Your task to perform on an android device: What's the weather? Image 0: 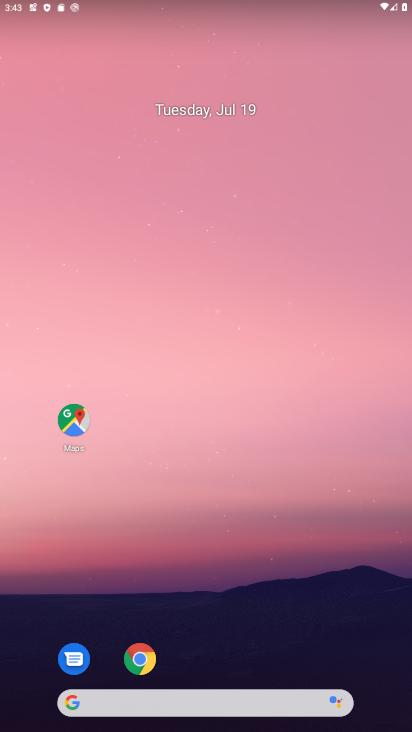
Step 0: drag from (329, 543) to (257, 25)
Your task to perform on an android device: What's the weather? Image 1: 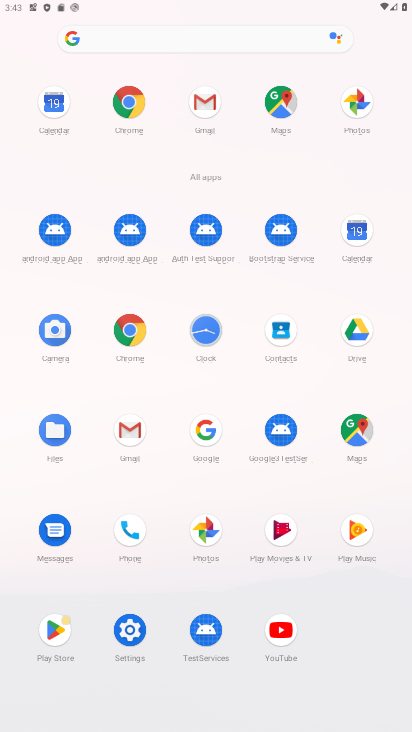
Step 1: click (197, 433)
Your task to perform on an android device: What's the weather? Image 2: 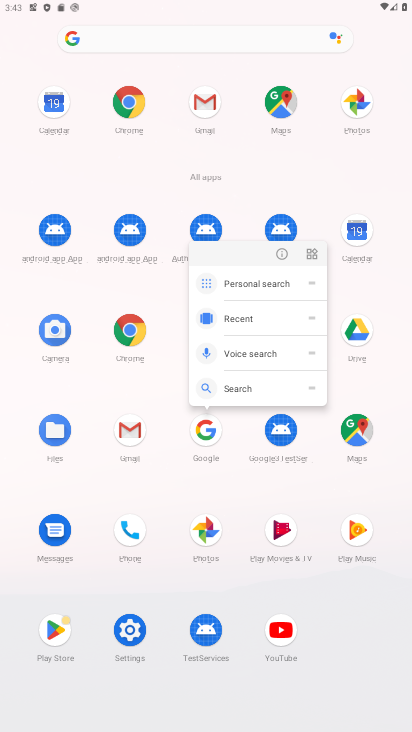
Step 2: click (198, 434)
Your task to perform on an android device: What's the weather? Image 3: 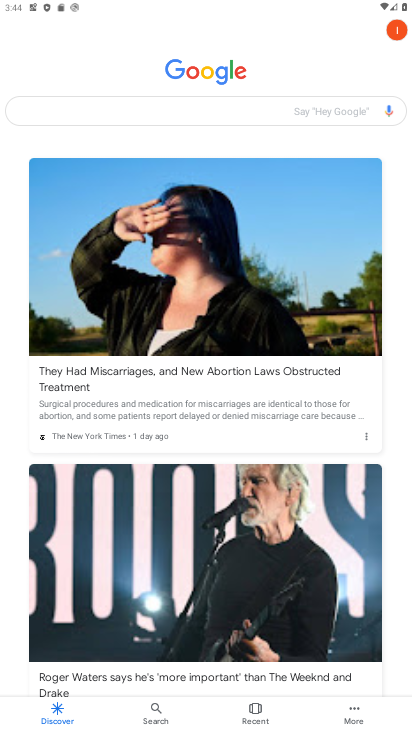
Step 3: drag from (181, 95) to (151, 400)
Your task to perform on an android device: What's the weather? Image 4: 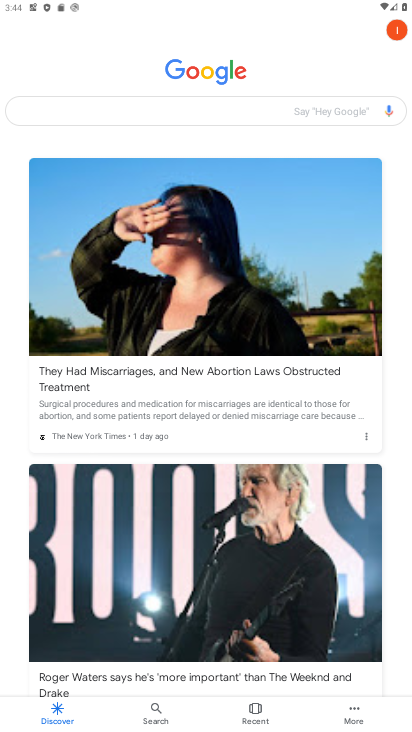
Step 4: click (173, 111)
Your task to perform on an android device: What's the weather? Image 5: 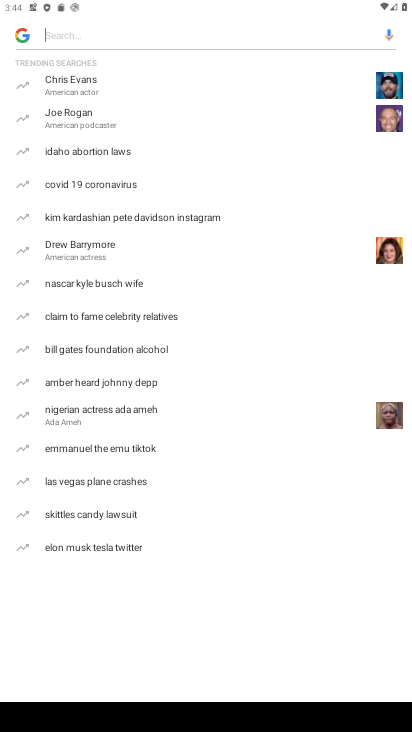
Step 5: type "weather"
Your task to perform on an android device: What's the weather? Image 6: 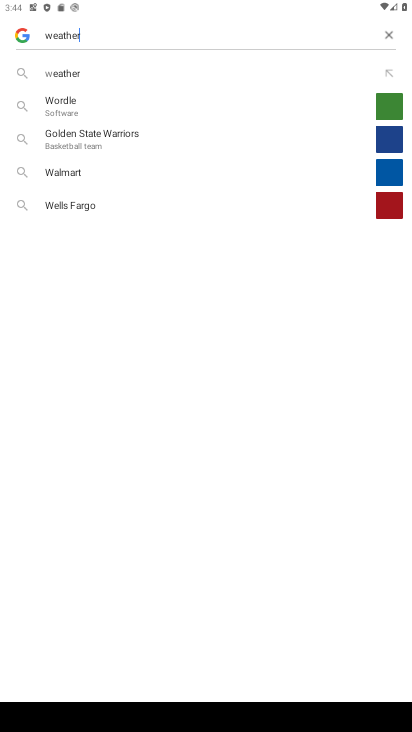
Step 6: press enter
Your task to perform on an android device: What's the weather? Image 7: 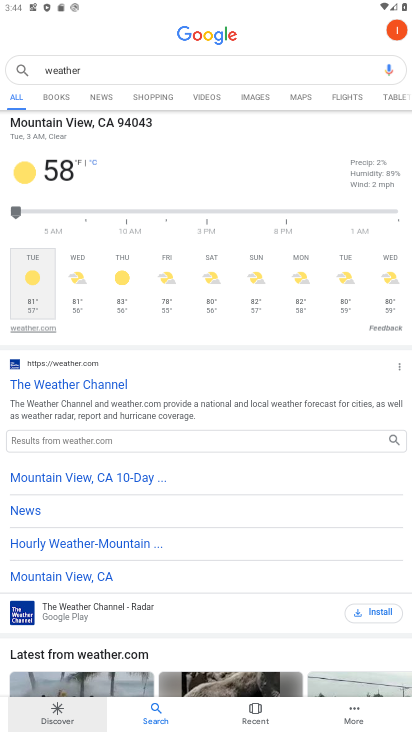
Step 7: task complete